Your task to perform on an android device: turn on the 12-hour format for clock Image 0: 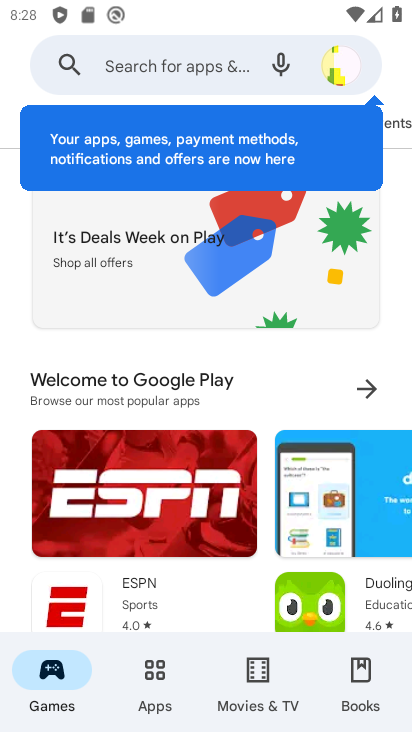
Step 0: press home button
Your task to perform on an android device: turn on the 12-hour format for clock Image 1: 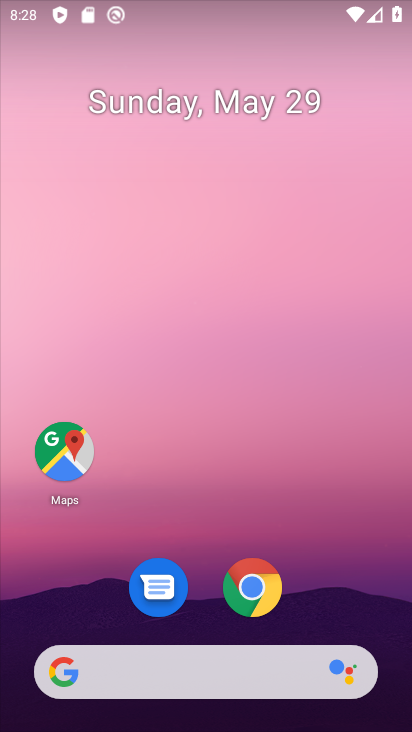
Step 1: drag from (205, 531) to (224, 147)
Your task to perform on an android device: turn on the 12-hour format for clock Image 2: 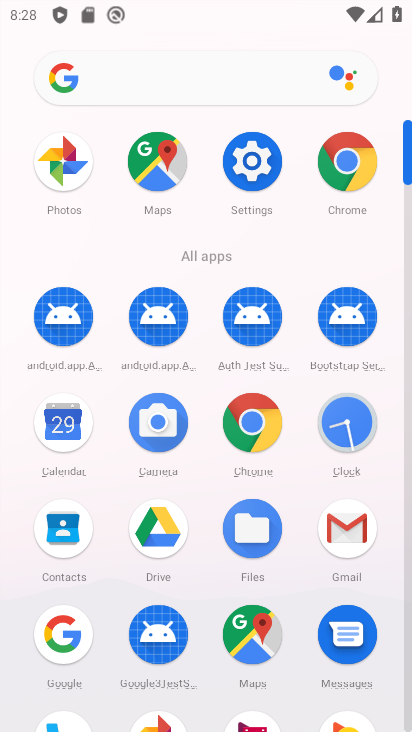
Step 2: click (345, 433)
Your task to perform on an android device: turn on the 12-hour format for clock Image 3: 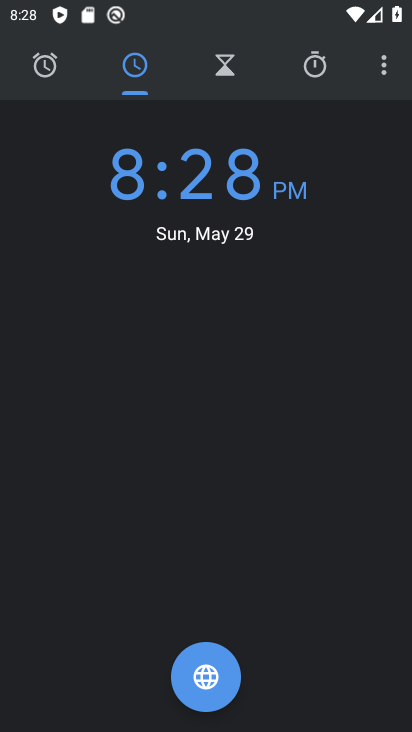
Step 3: click (392, 64)
Your task to perform on an android device: turn on the 12-hour format for clock Image 4: 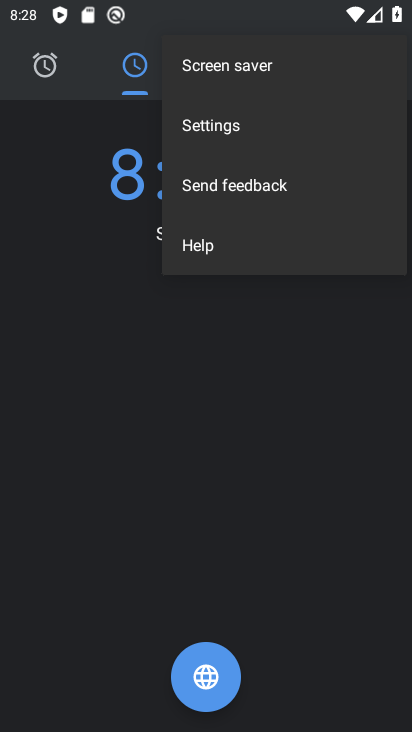
Step 4: click (257, 140)
Your task to perform on an android device: turn on the 12-hour format for clock Image 5: 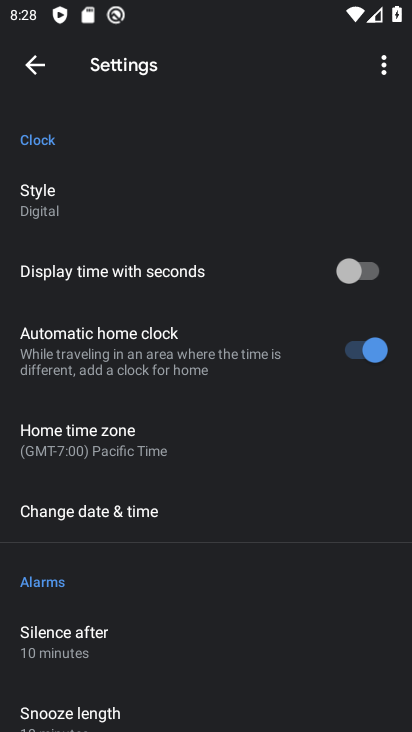
Step 5: task complete